Your task to perform on an android device: Open wifi settings Image 0: 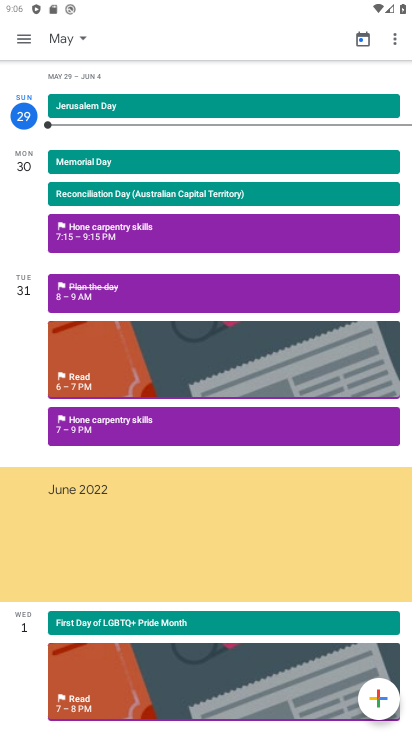
Step 0: press home button
Your task to perform on an android device: Open wifi settings Image 1: 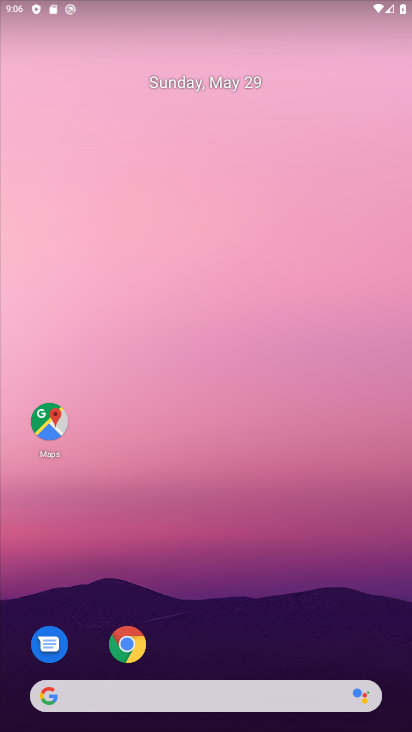
Step 1: drag from (237, 635) to (317, 136)
Your task to perform on an android device: Open wifi settings Image 2: 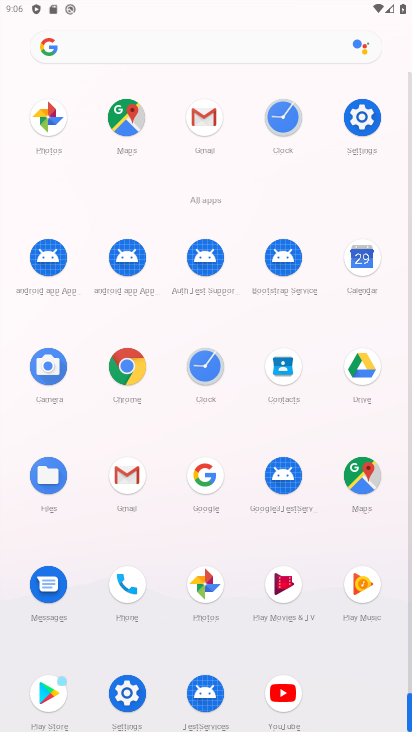
Step 2: click (131, 689)
Your task to perform on an android device: Open wifi settings Image 3: 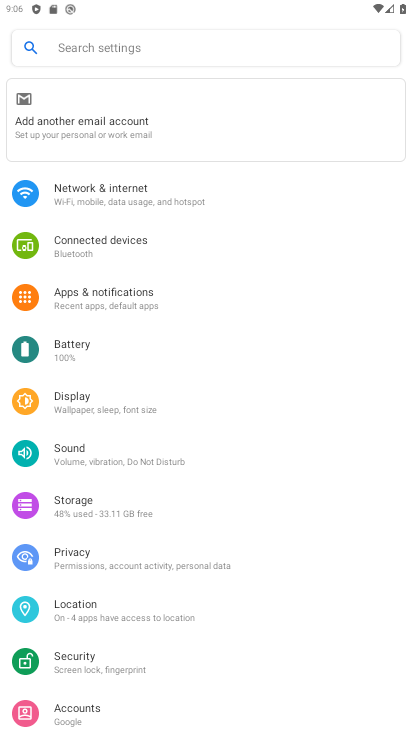
Step 3: click (146, 194)
Your task to perform on an android device: Open wifi settings Image 4: 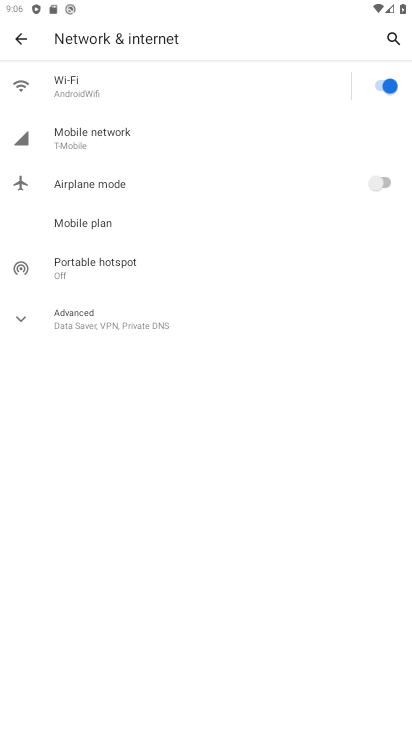
Step 4: click (153, 100)
Your task to perform on an android device: Open wifi settings Image 5: 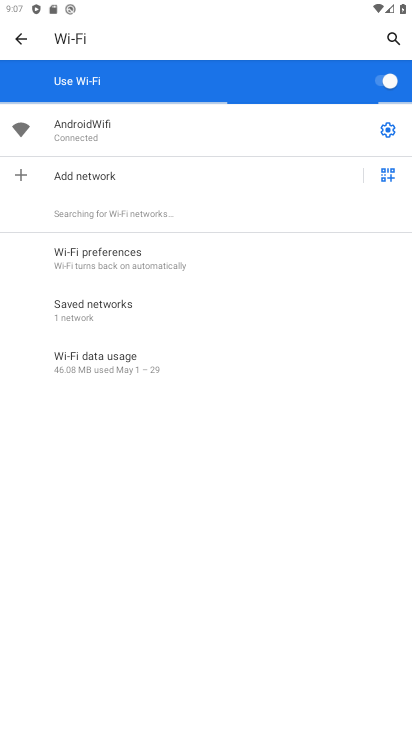
Step 5: task complete